Your task to perform on an android device: Set the phone to "Do not disturb". Image 0: 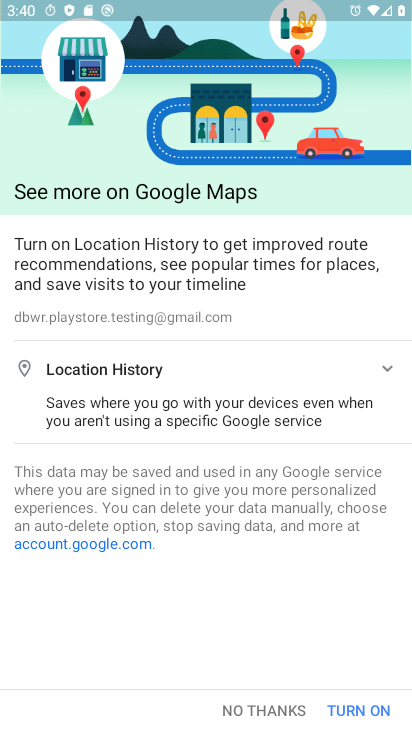
Step 0: press home button
Your task to perform on an android device: Set the phone to "Do not disturb". Image 1: 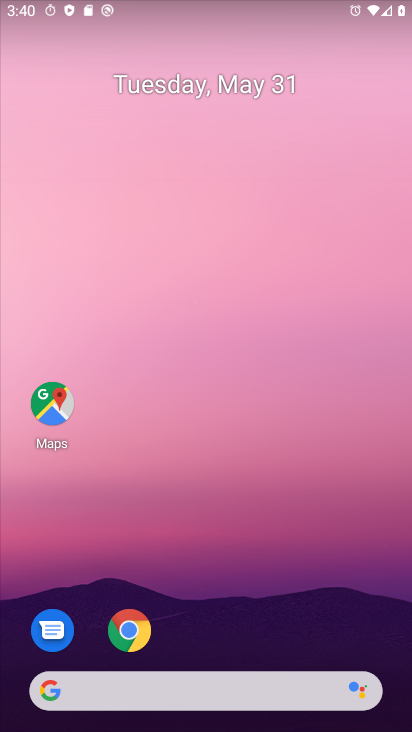
Step 1: drag from (313, 643) to (267, 42)
Your task to perform on an android device: Set the phone to "Do not disturb". Image 2: 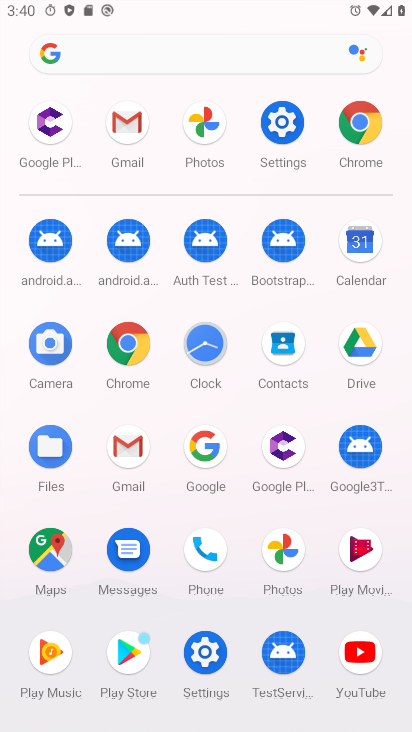
Step 2: click (275, 123)
Your task to perform on an android device: Set the phone to "Do not disturb". Image 3: 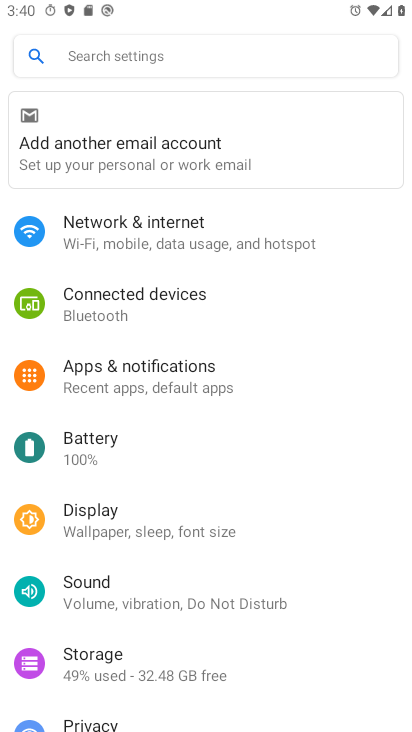
Step 3: click (135, 593)
Your task to perform on an android device: Set the phone to "Do not disturb". Image 4: 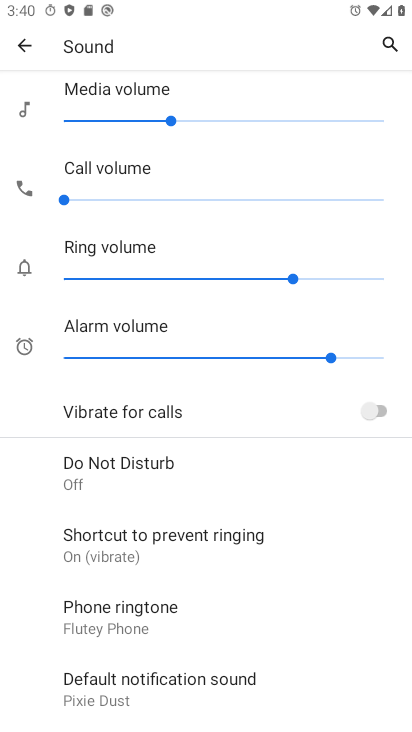
Step 4: click (146, 480)
Your task to perform on an android device: Set the phone to "Do not disturb". Image 5: 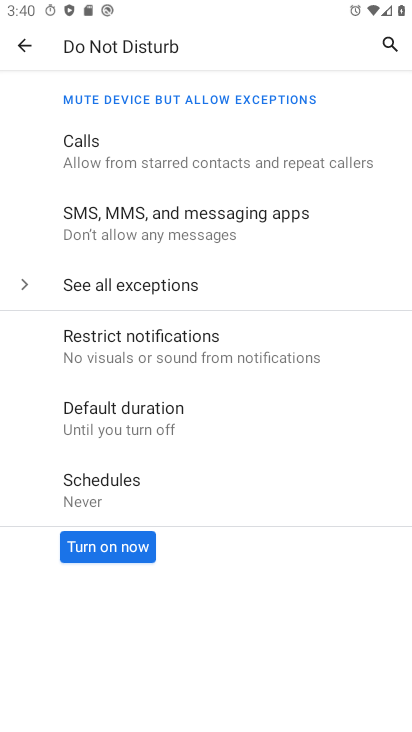
Step 5: click (149, 547)
Your task to perform on an android device: Set the phone to "Do not disturb". Image 6: 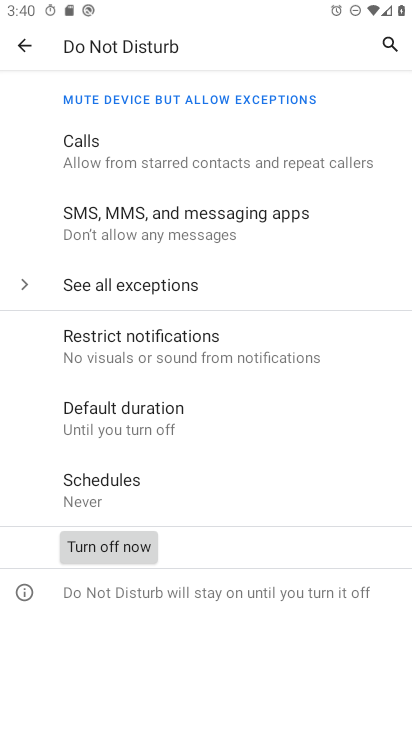
Step 6: task complete